Your task to perform on an android device: Search for pizza restaurants on Maps Image 0: 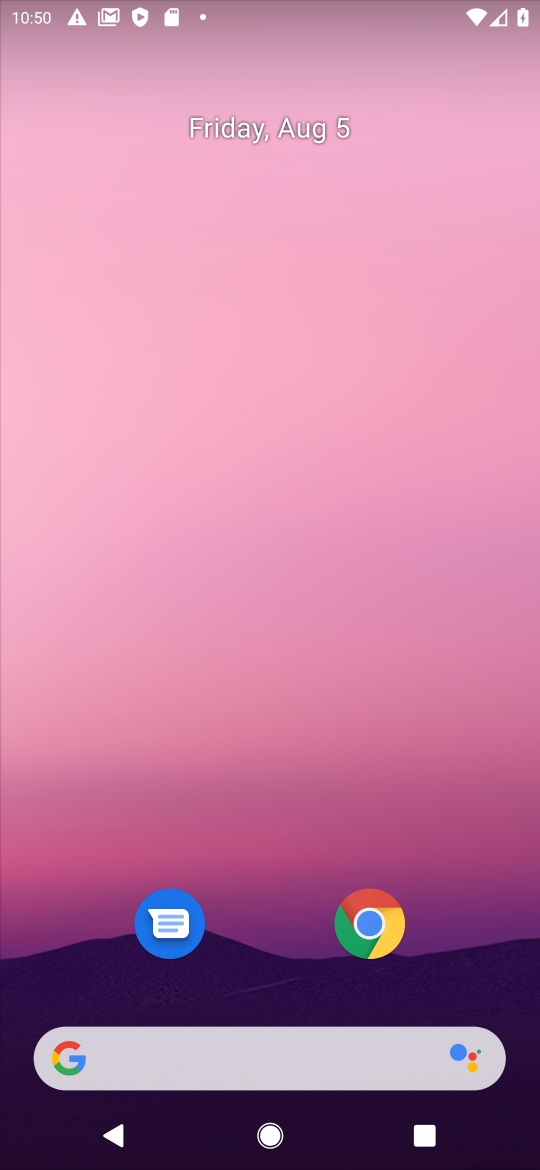
Step 0: drag from (317, 792) to (324, 33)
Your task to perform on an android device: Search for pizza restaurants on Maps Image 1: 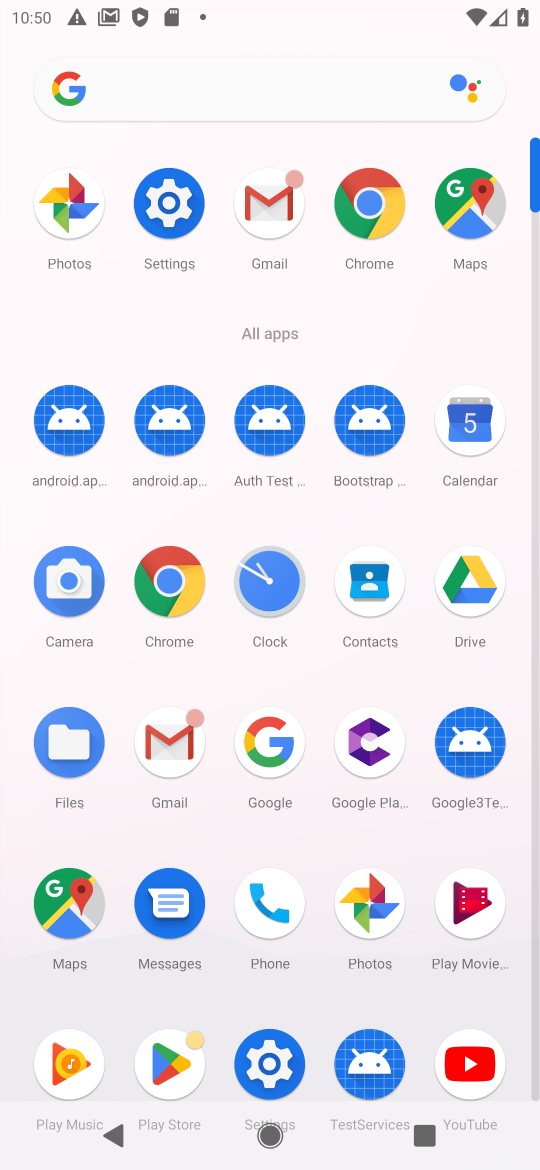
Step 1: click (62, 908)
Your task to perform on an android device: Search for pizza restaurants on Maps Image 2: 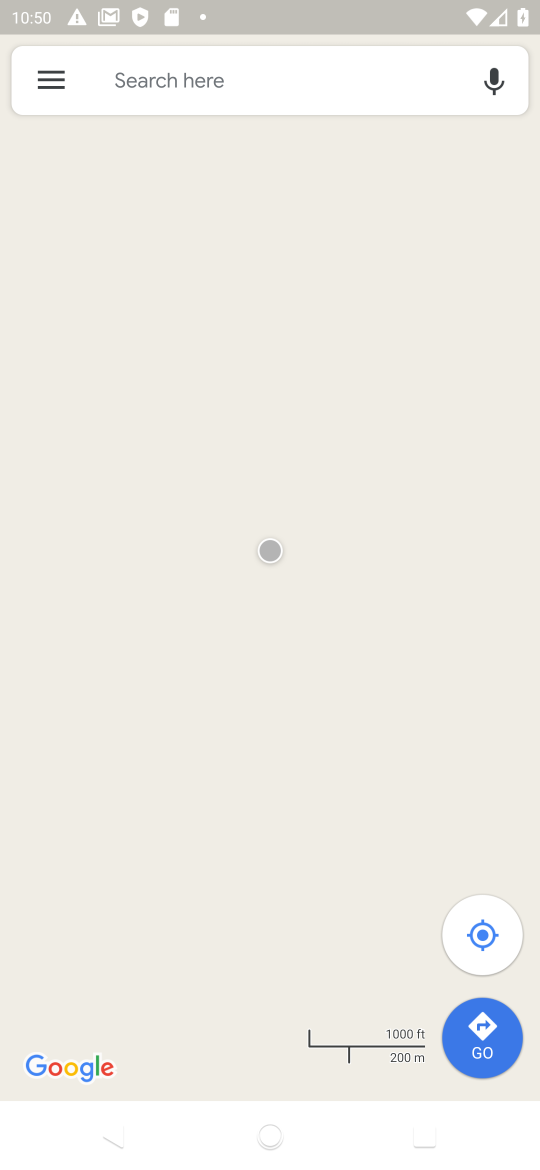
Step 2: click (206, 73)
Your task to perform on an android device: Search for pizza restaurants on Maps Image 3: 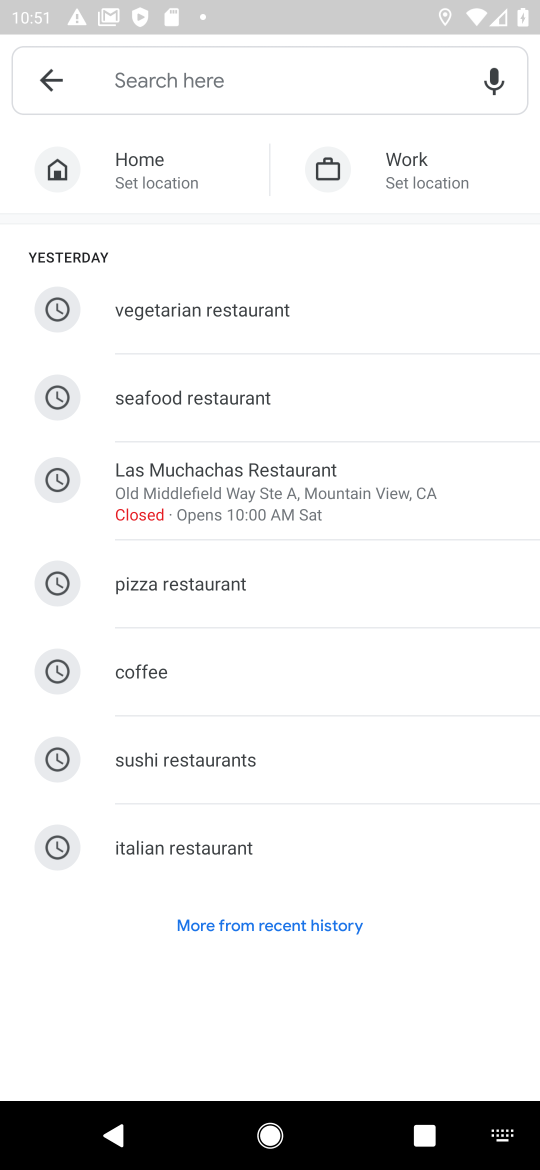
Step 3: type "pizza restau"
Your task to perform on an android device: Search for pizza restaurants on Maps Image 4: 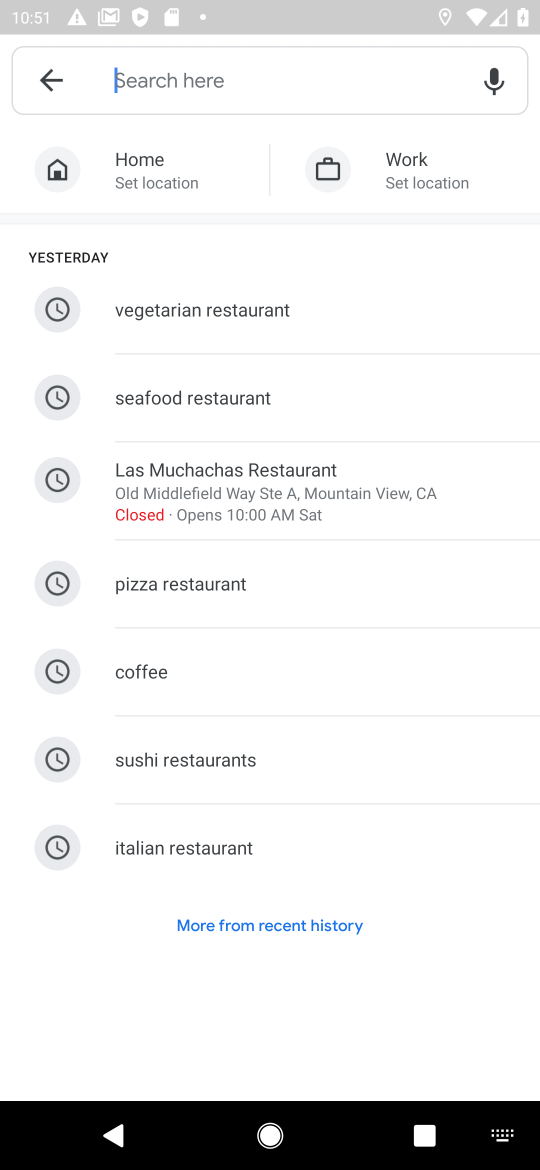
Step 4: click (231, 574)
Your task to perform on an android device: Search for pizza restaurants on Maps Image 5: 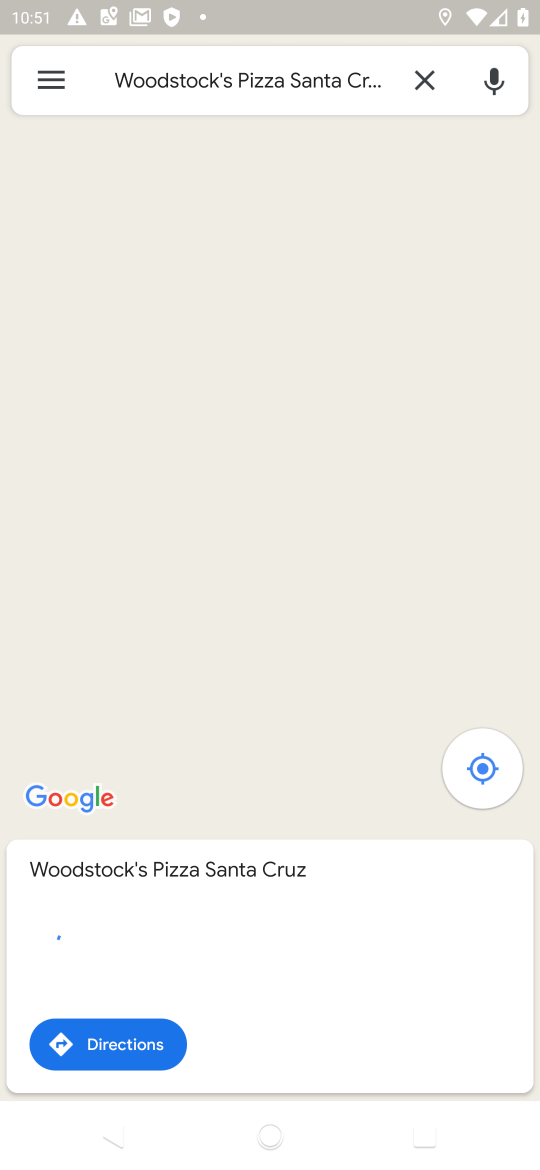
Step 5: task complete